Your task to perform on an android device: What's on my calendar tomorrow? Image 0: 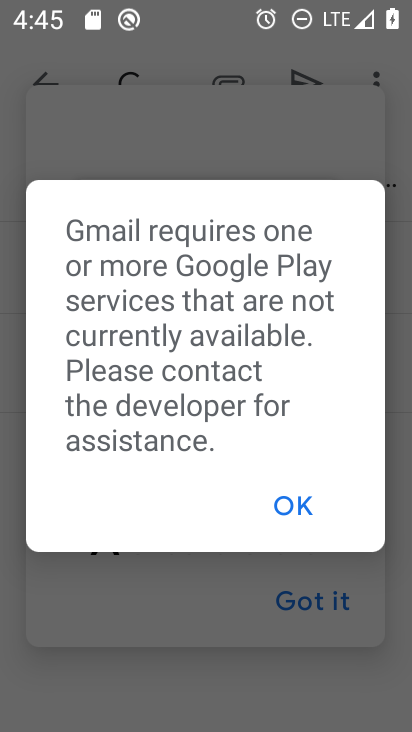
Step 0: press home button
Your task to perform on an android device: What's on my calendar tomorrow? Image 1: 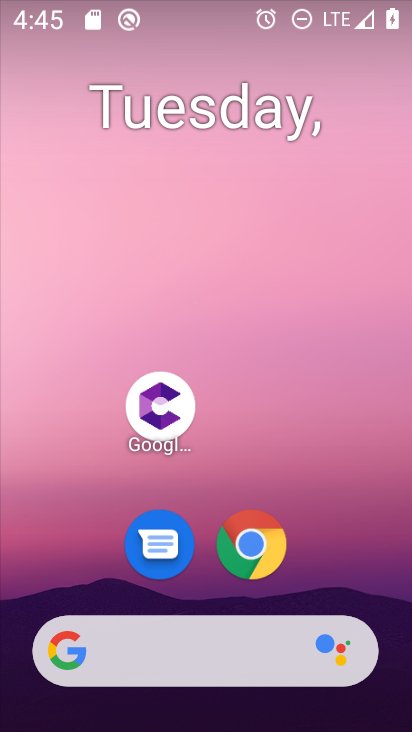
Step 1: drag from (339, 575) to (343, 140)
Your task to perform on an android device: What's on my calendar tomorrow? Image 2: 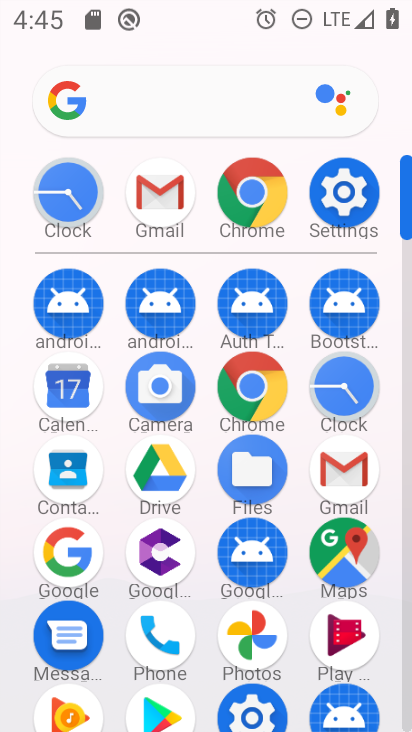
Step 2: click (65, 400)
Your task to perform on an android device: What's on my calendar tomorrow? Image 3: 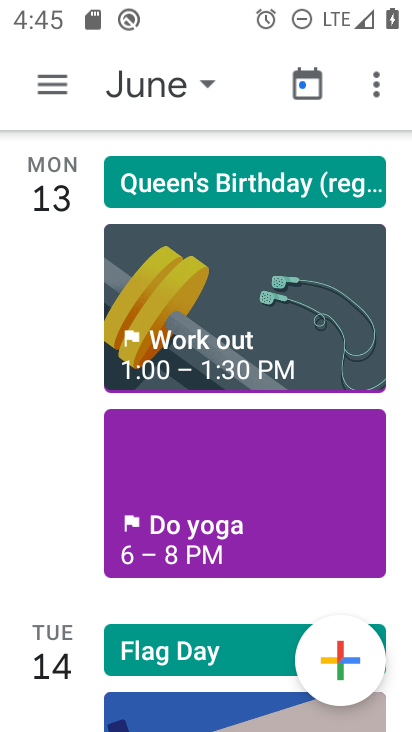
Step 3: click (202, 86)
Your task to perform on an android device: What's on my calendar tomorrow? Image 4: 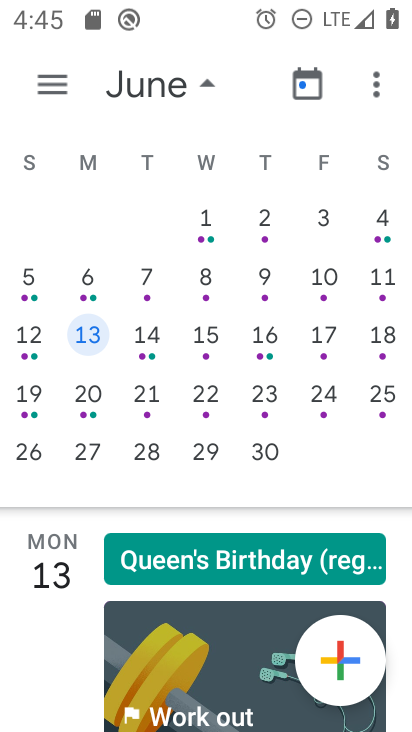
Step 4: drag from (42, 204) to (395, 203)
Your task to perform on an android device: What's on my calendar tomorrow? Image 5: 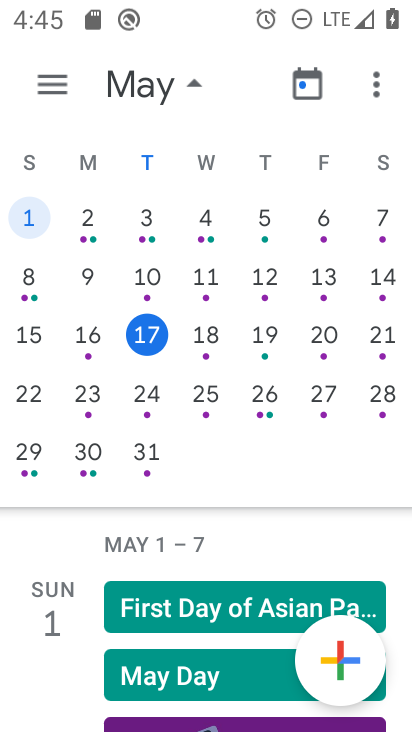
Step 5: click (202, 333)
Your task to perform on an android device: What's on my calendar tomorrow? Image 6: 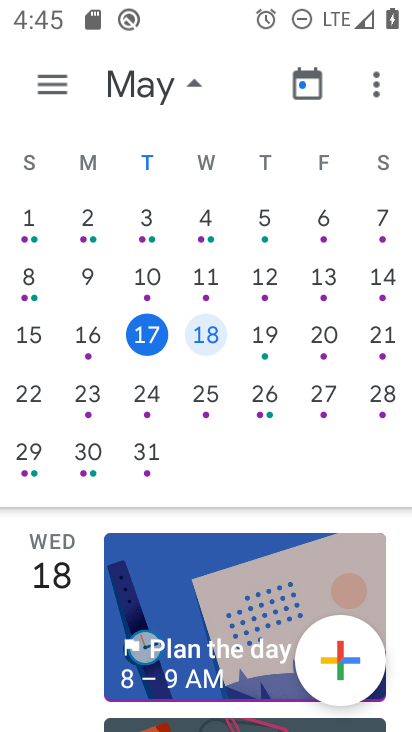
Step 6: task complete